Your task to perform on an android device: Search for vegetarian restaurants on Maps Image 0: 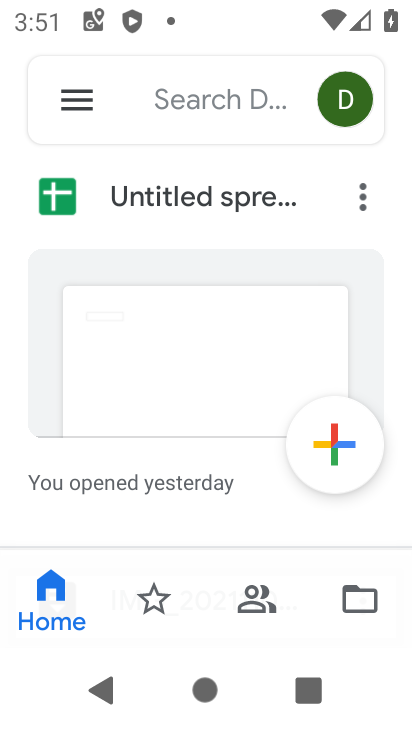
Step 0: press home button
Your task to perform on an android device: Search for vegetarian restaurants on Maps Image 1: 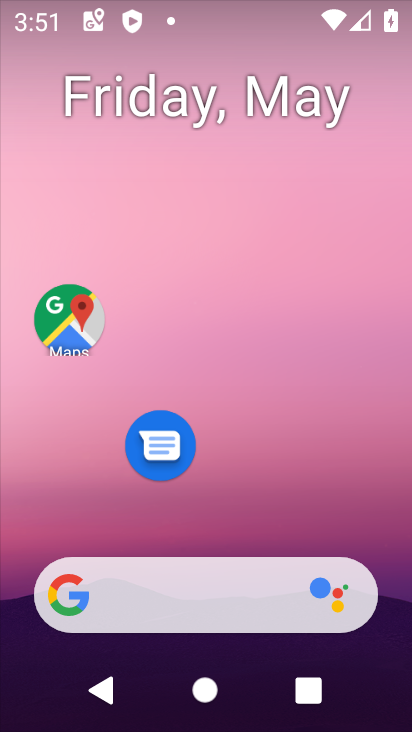
Step 1: click (63, 295)
Your task to perform on an android device: Search for vegetarian restaurants on Maps Image 2: 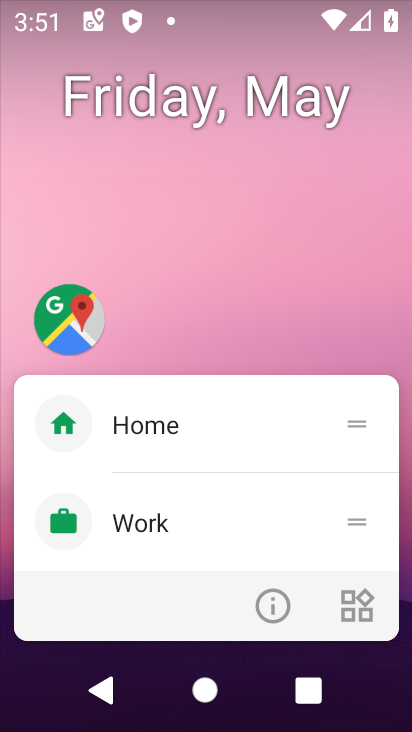
Step 2: click (60, 299)
Your task to perform on an android device: Search for vegetarian restaurants on Maps Image 3: 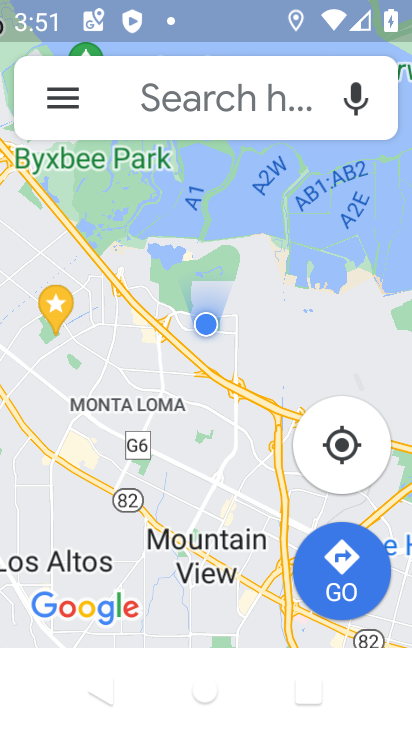
Step 3: click (173, 116)
Your task to perform on an android device: Search for vegetarian restaurants on Maps Image 4: 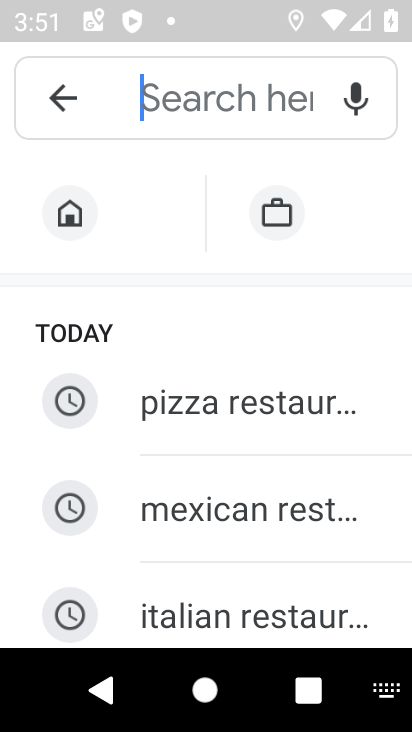
Step 4: type "vegetariian restaurants"
Your task to perform on an android device: Search for vegetarian restaurants on Maps Image 5: 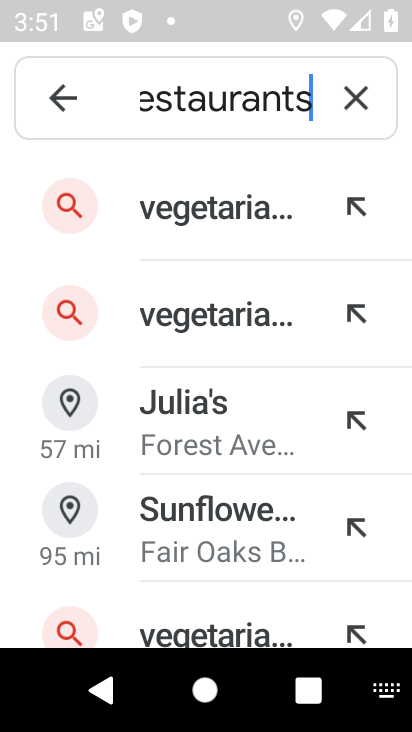
Step 5: click (173, 234)
Your task to perform on an android device: Search for vegetarian restaurants on Maps Image 6: 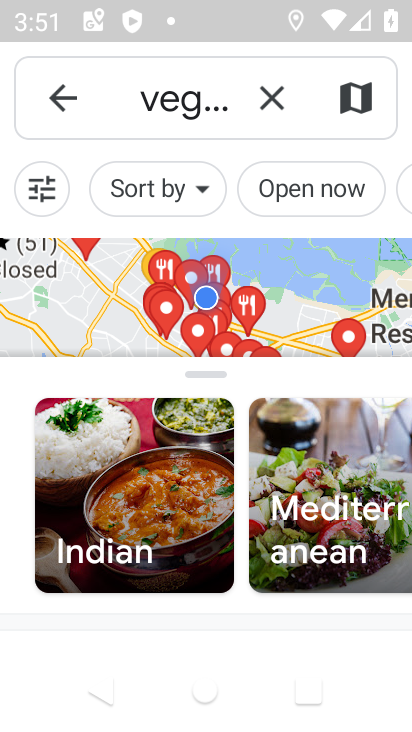
Step 6: task complete